Your task to perform on an android device: Go to wifi settings Image 0: 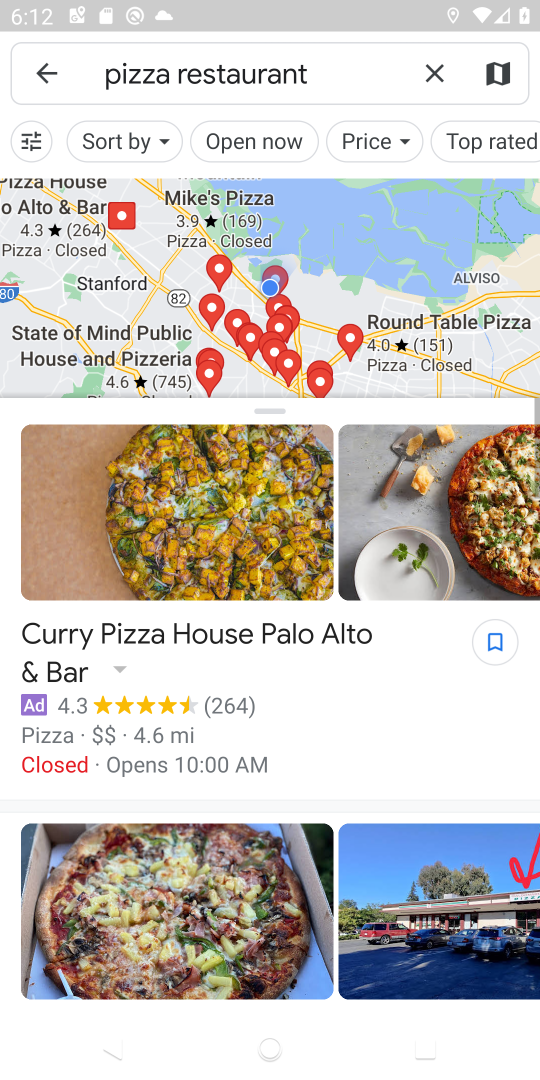
Step 0: press home button
Your task to perform on an android device: Go to wifi settings Image 1: 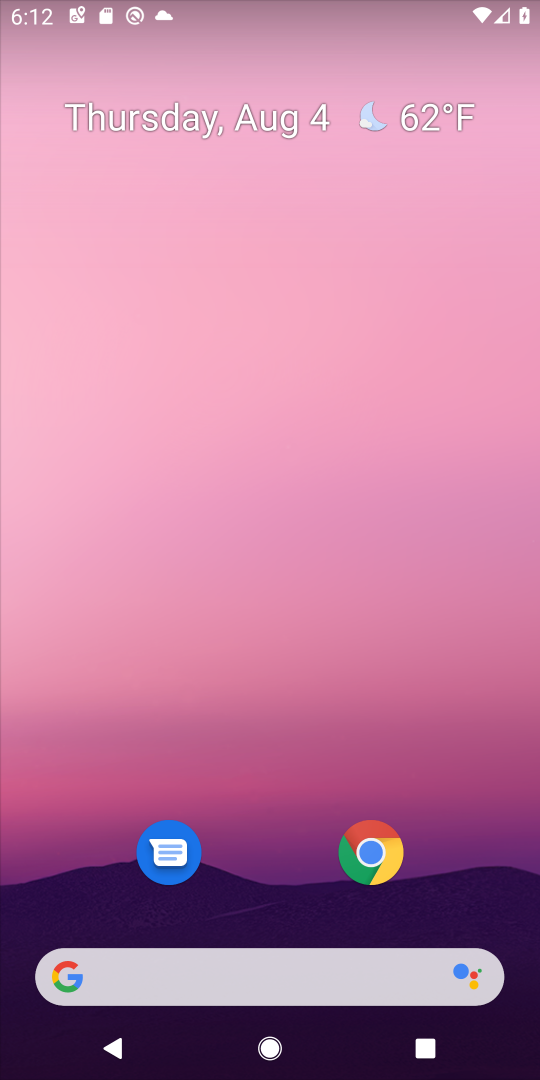
Step 1: drag from (289, 920) to (271, 84)
Your task to perform on an android device: Go to wifi settings Image 2: 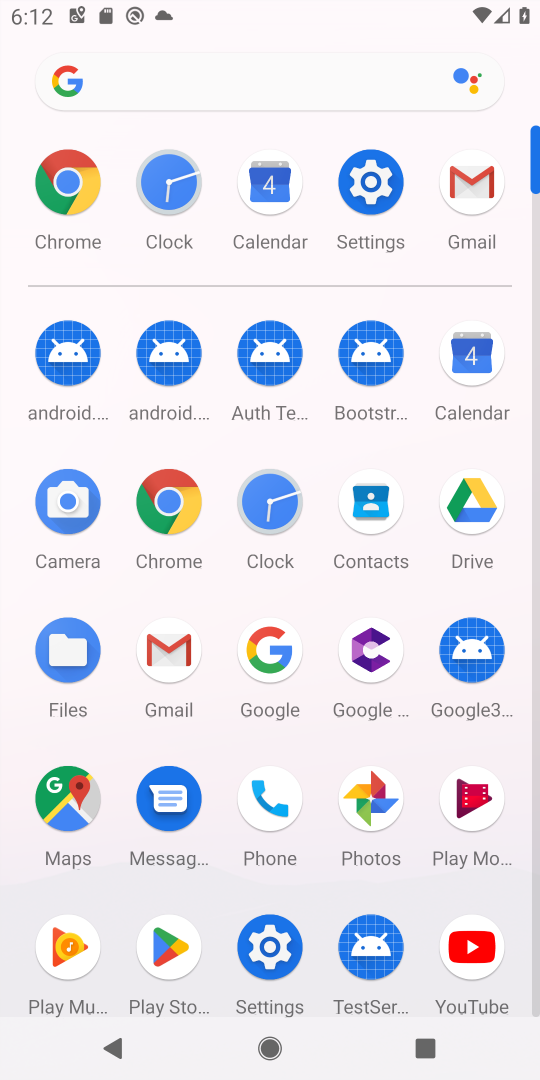
Step 2: click (381, 174)
Your task to perform on an android device: Go to wifi settings Image 3: 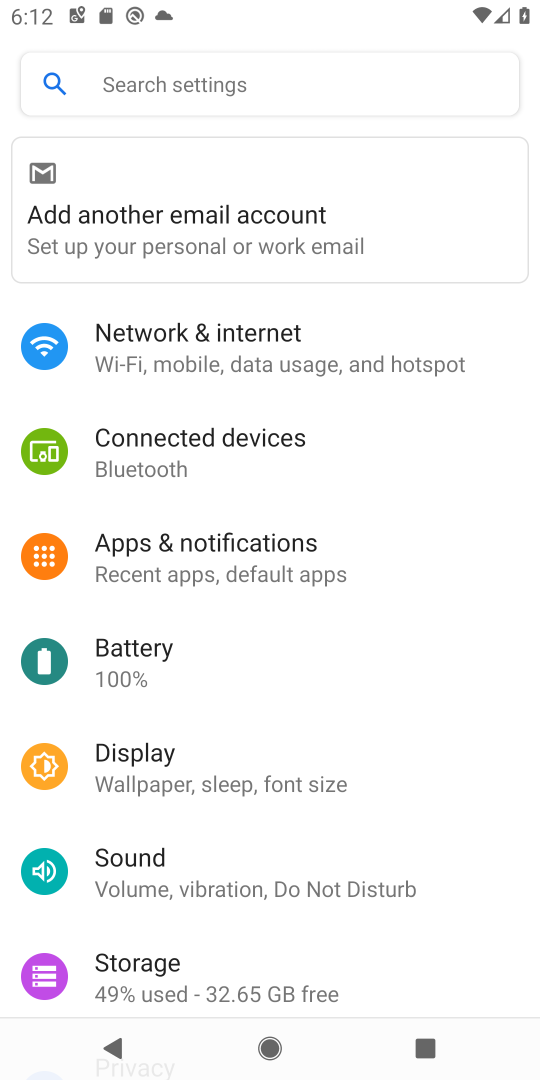
Step 3: click (128, 360)
Your task to perform on an android device: Go to wifi settings Image 4: 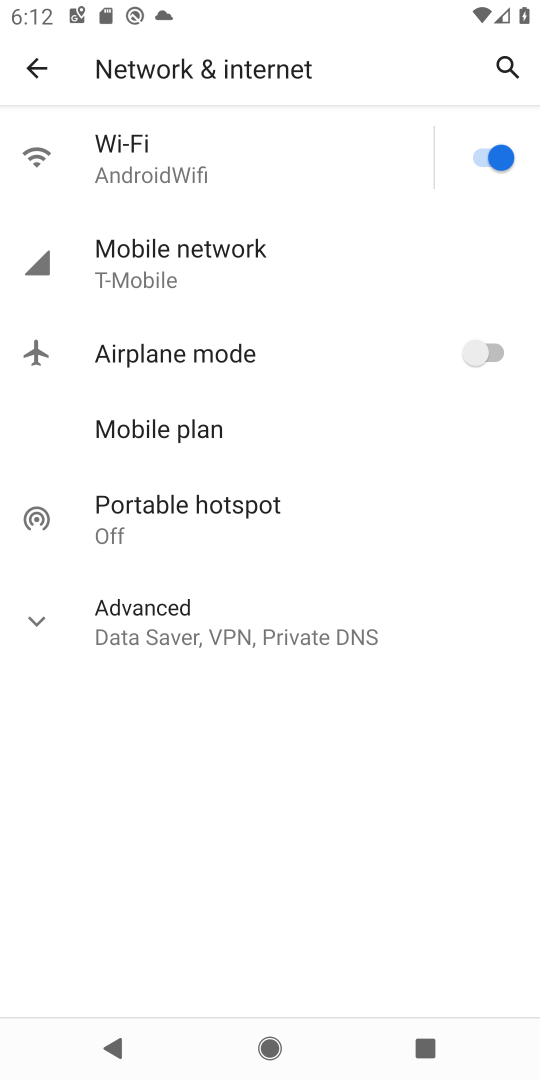
Step 4: click (143, 160)
Your task to perform on an android device: Go to wifi settings Image 5: 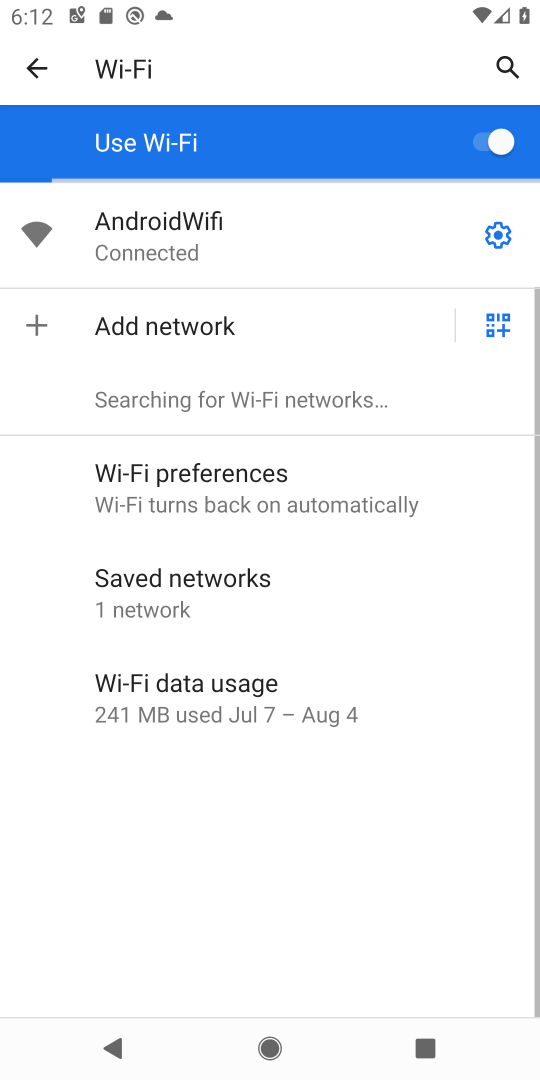
Step 5: task complete